Your task to perform on an android device: clear history in the chrome app Image 0: 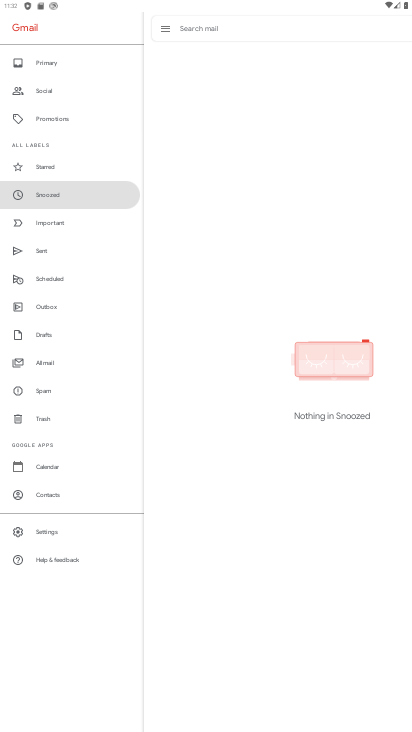
Step 0: drag from (229, 666) to (250, 175)
Your task to perform on an android device: clear history in the chrome app Image 1: 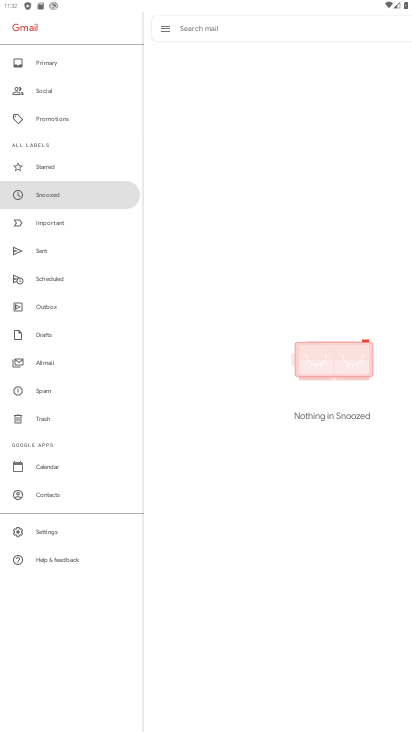
Step 1: press home button
Your task to perform on an android device: clear history in the chrome app Image 2: 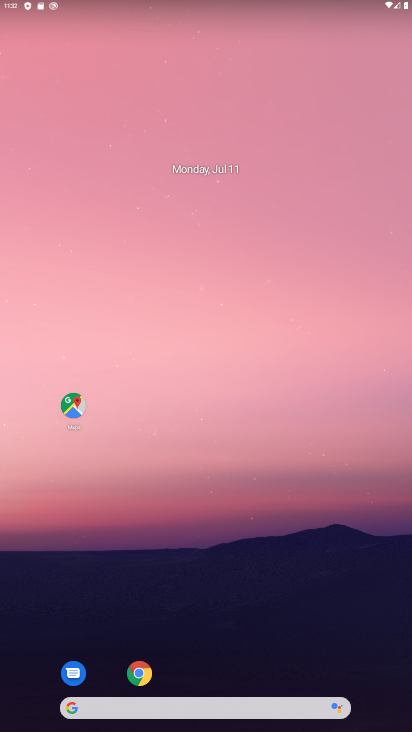
Step 2: click (137, 667)
Your task to perform on an android device: clear history in the chrome app Image 3: 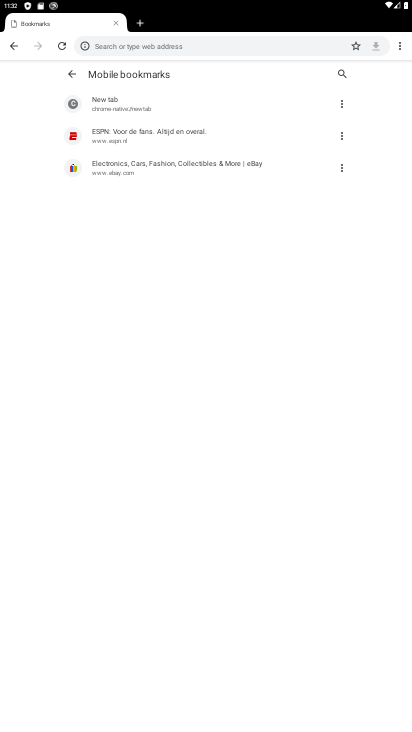
Step 3: click (132, 22)
Your task to perform on an android device: clear history in the chrome app Image 4: 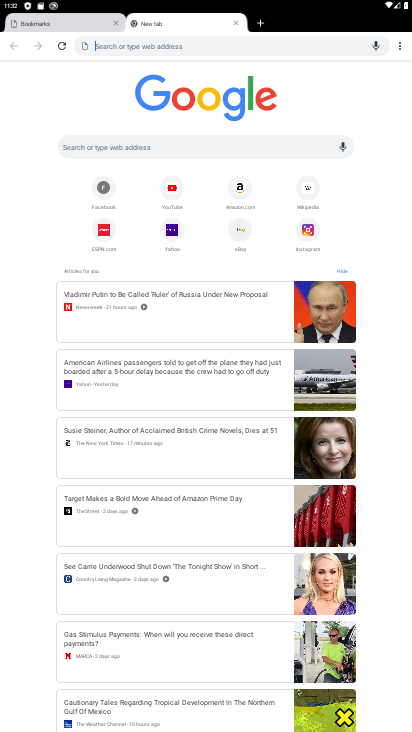
Step 4: click (400, 47)
Your task to perform on an android device: clear history in the chrome app Image 5: 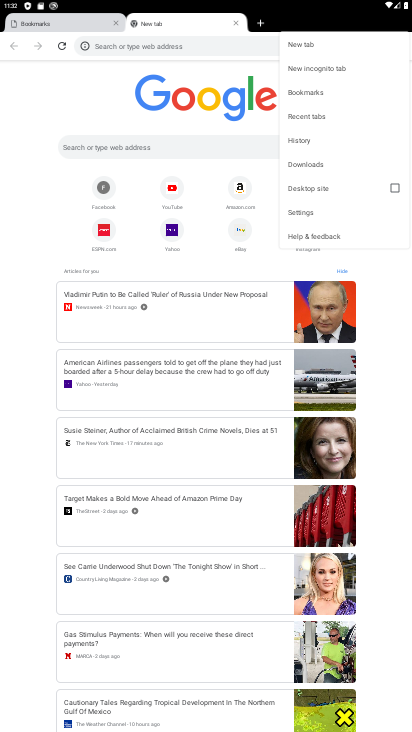
Step 5: click (309, 141)
Your task to perform on an android device: clear history in the chrome app Image 6: 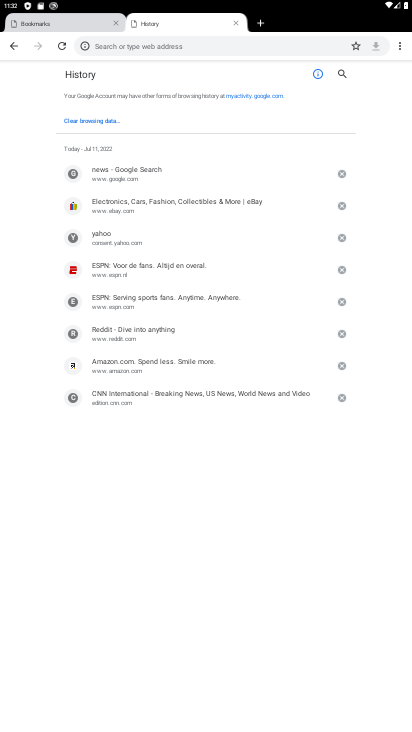
Step 6: click (97, 118)
Your task to perform on an android device: clear history in the chrome app Image 7: 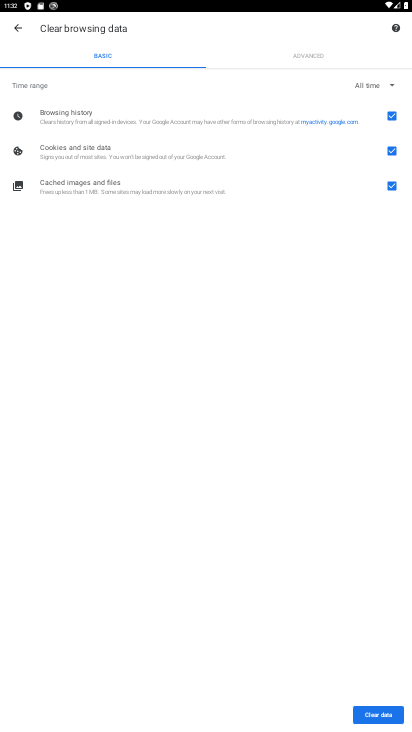
Step 7: click (382, 718)
Your task to perform on an android device: clear history in the chrome app Image 8: 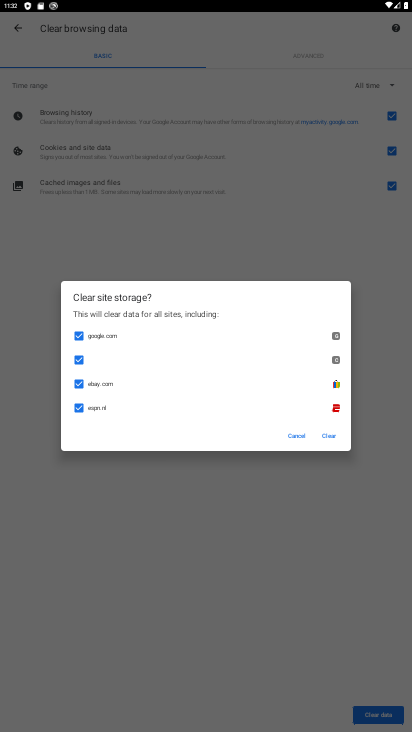
Step 8: click (327, 432)
Your task to perform on an android device: clear history in the chrome app Image 9: 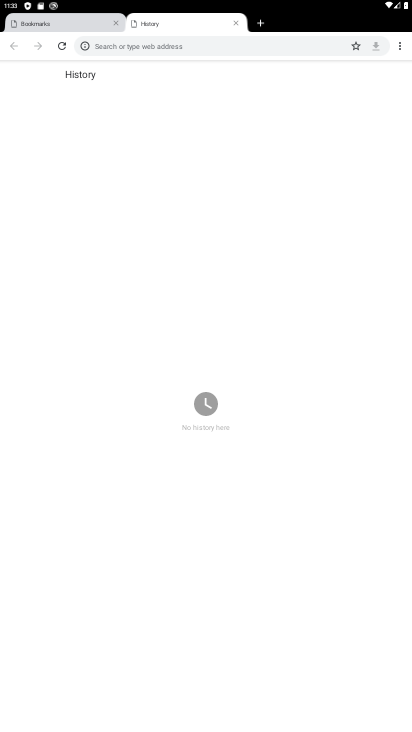
Step 9: task complete